Your task to perform on an android device: Clear all items from cart on bestbuy.com. Image 0: 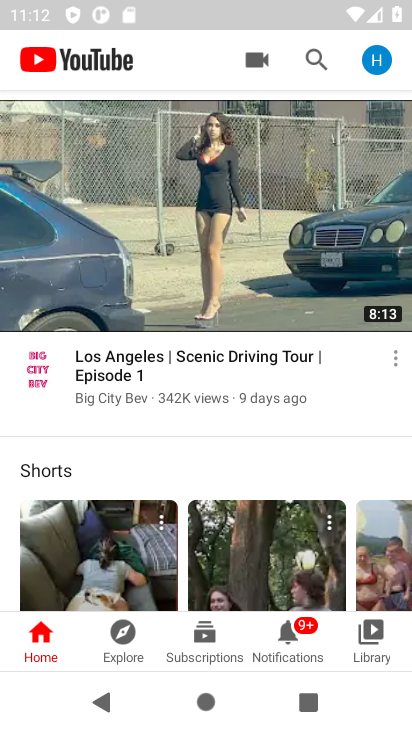
Step 0: press home button
Your task to perform on an android device: Clear all items from cart on bestbuy.com. Image 1: 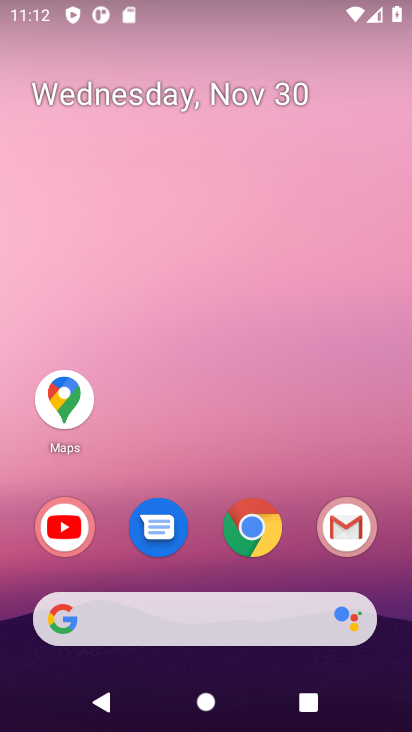
Step 1: click (256, 521)
Your task to perform on an android device: Clear all items from cart on bestbuy.com. Image 2: 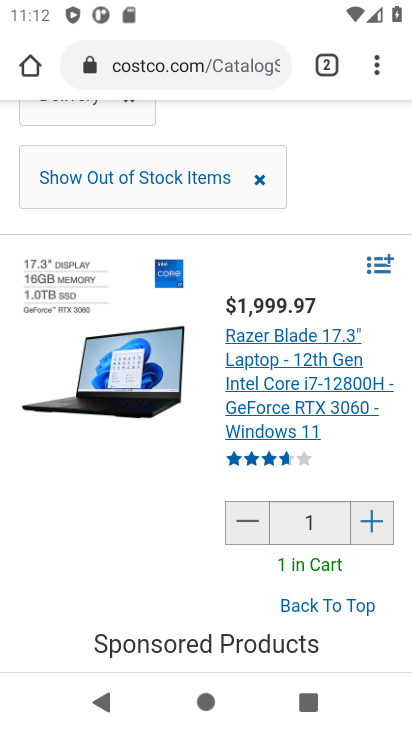
Step 2: click (191, 67)
Your task to perform on an android device: Clear all items from cart on bestbuy.com. Image 3: 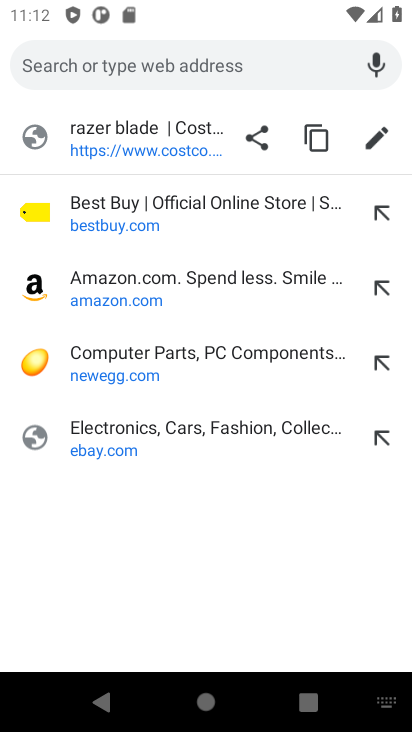
Step 3: click (106, 217)
Your task to perform on an android device: Clear all items from cart on bestbuy.com. Image 4: 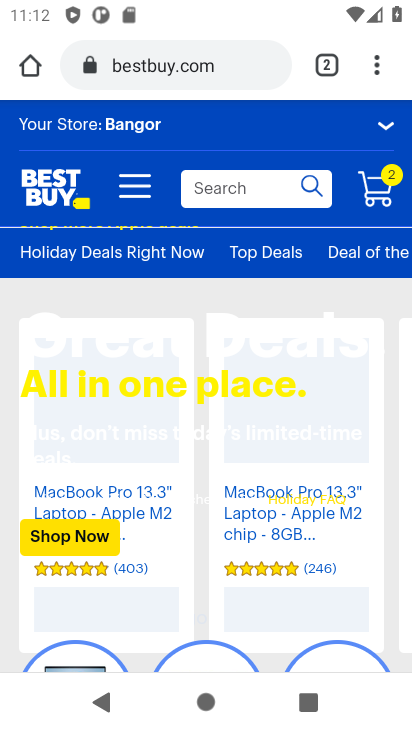
Step 4: click (378, 185)
Your task to perform on an android device: Clear all items from cart on bestbuy.com. Image 5: 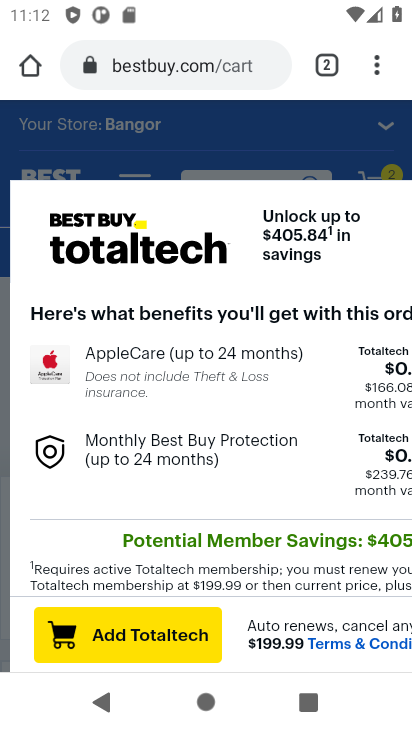
Step 5: click (274, 137)
Your task to perform on an android device: Clear all items from cart on bestbuy.com. Image 6: 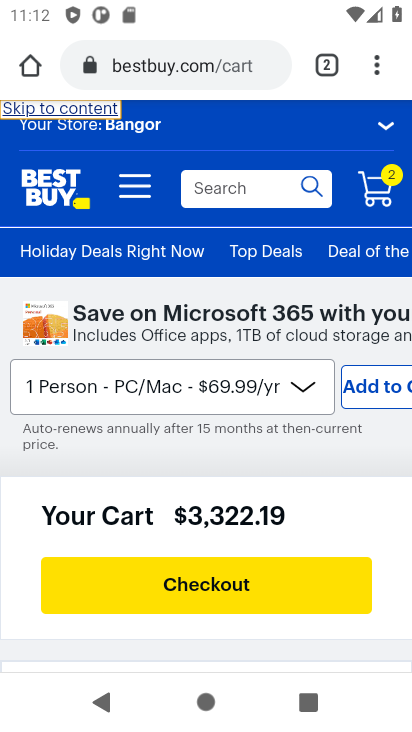
Step 6: drag from (193, 452) to (181, 173)
Your task to perform on an android device: Clear all items from cart on bestbuy.com. Image 7: 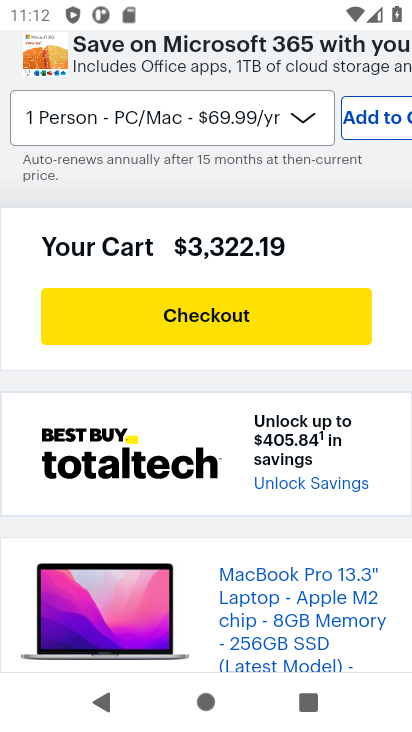
Step 7: drag from (157, 477) to (141, 178)
Your task to perform on an android device: Clear all items from cart on bestbuy.com. Image 8: 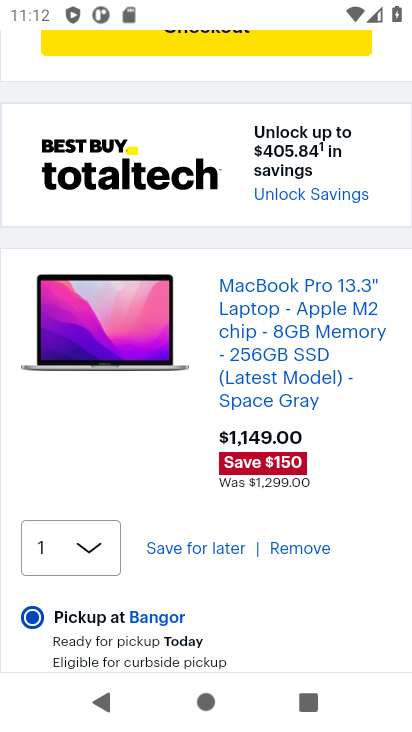
Step 8: click (295, 551)
Your task to perform on an android device: Clear all items from cart on bestbuy.com. Image 9: 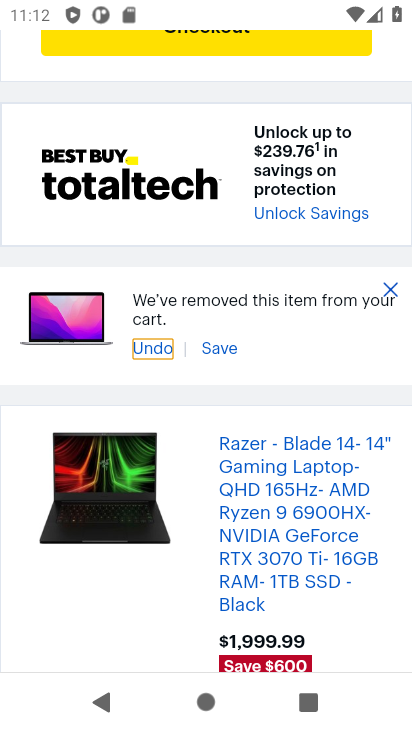
Step 9: drag from (252, 549) to (207, 283)
Your task to perform on an android device: Clear all items from cart on bestbuy.com. Image 10: 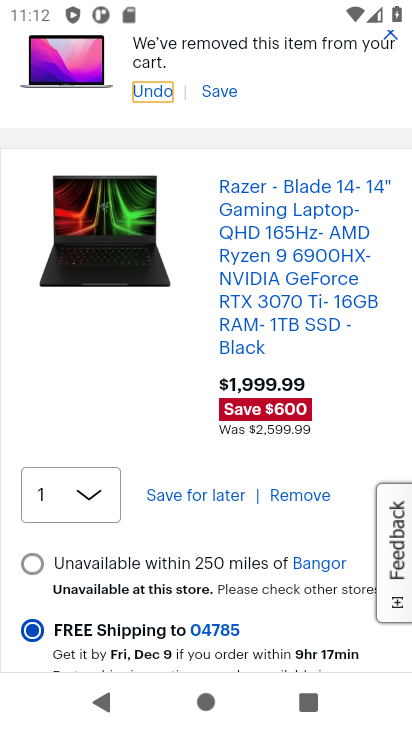
Step 10: click (301, 496)
Your task to perform on an android device: Clear all items from cart on bestbuy.com. Image 11: 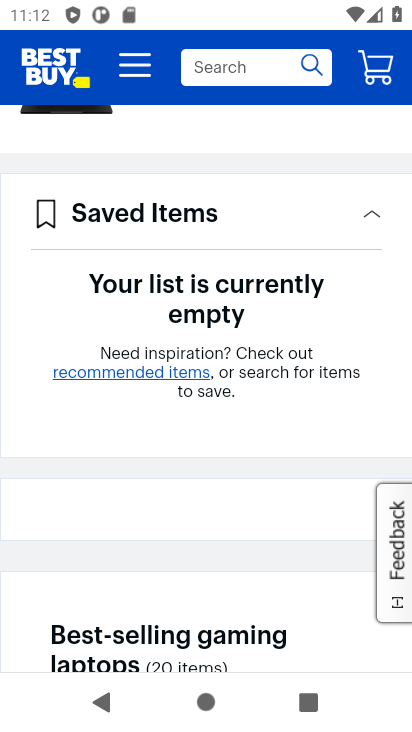
Step 11: task complete